Your task to perform on an android device: turn vacation reply on in the gmail app Image 0: 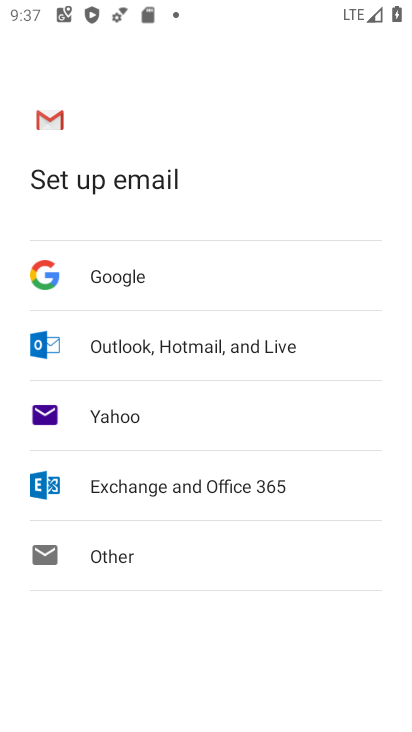
Step 0: press home button
Your task to perform on an android device: turn vacation reply on in the gmail app Image 1: 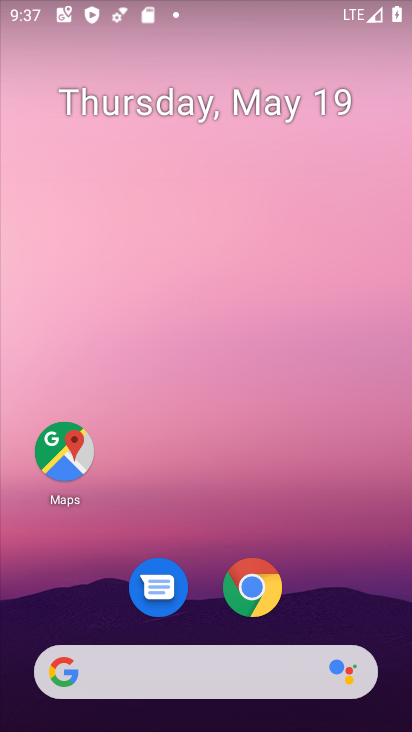
Step 1: drag from (204, 627) to (234, 223)
Your task to perform on an android device: turn vacation reply on in the gmail app Image 2: 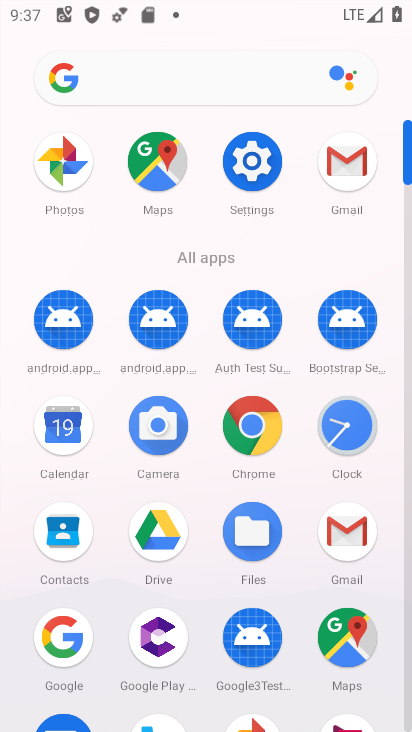
Step 2: click (350, 160)
Your task to perform on an android device: turn vacation reply on in the gmail app Image 3: 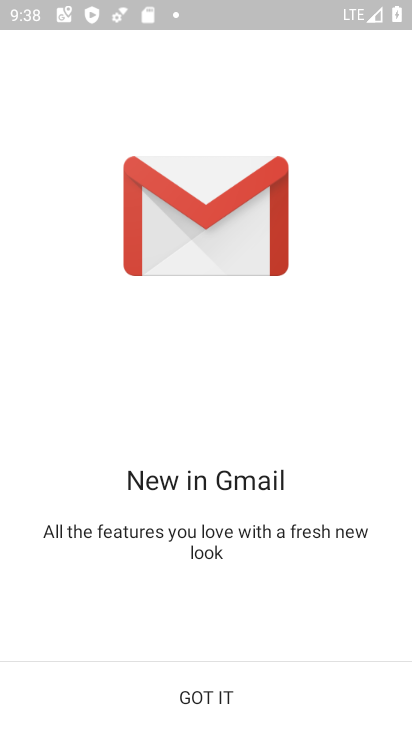
Step 3: click (198, 697)
Your task to perform on an android device: turn vacation reply on in the gmail app Image 4: 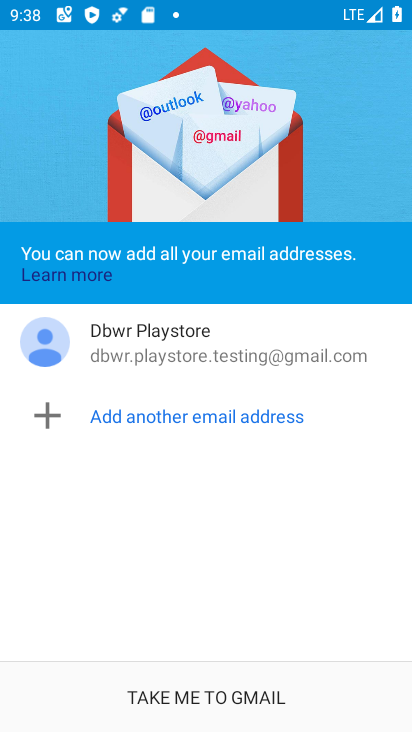
Step 4: click (198, 697)
Your task to perform on an android device: turn vacation reply on in the gmail app Image 5: 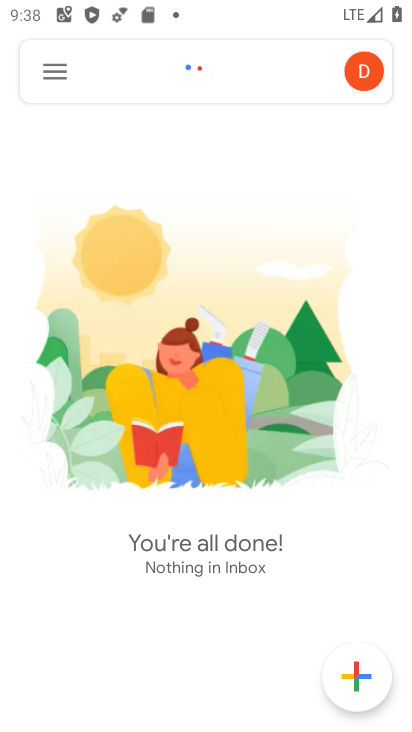
Step 5: click (59, 66)
Your task to perform on an android device: turn vacation reply on in the gmail app Image 6: 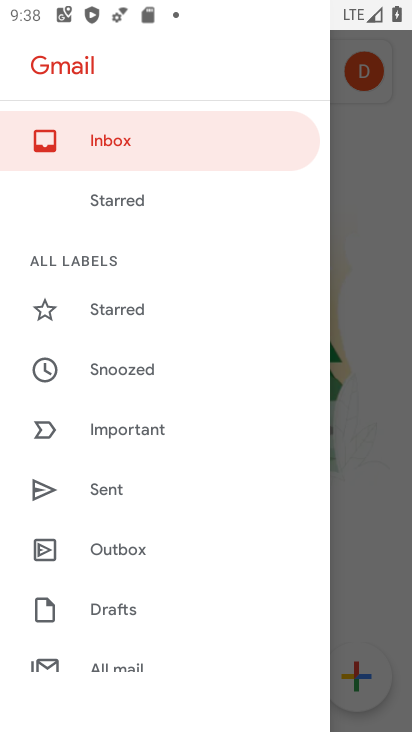
Step 6: drag from (89, 624) to (192, 65)
Your task to perform on an android device: turn vacation reply on in the gmail app Image 7: 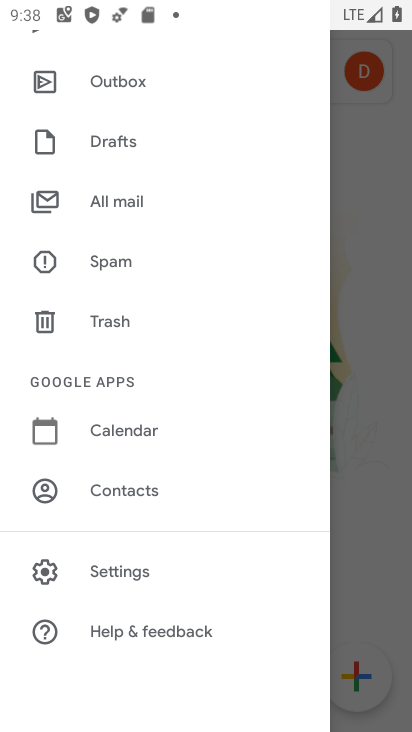
Step 7: click (135, 574)
Your task to perform on an android device: turn vacation reply on in the gmail app Image 8: 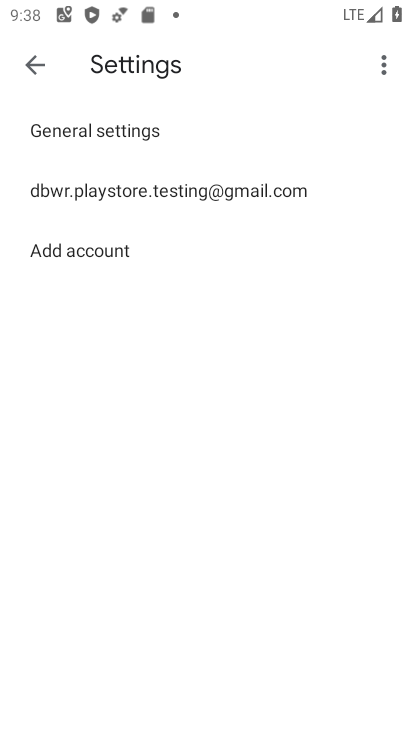
Step 8: click (178, 217)
Your task to perform on an android device: turn vacation reply on in the gmail app Image 9: 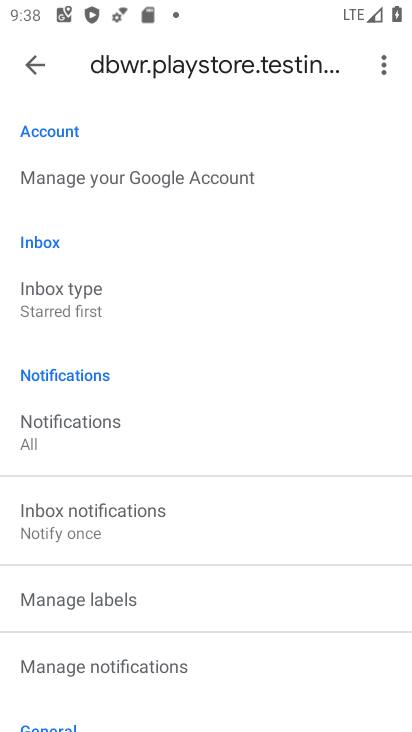
Step 9: drag from (135, 660) to (210, 281)
Your task to perform on an android device: turn vacation reply on in the gmail app Image 10: 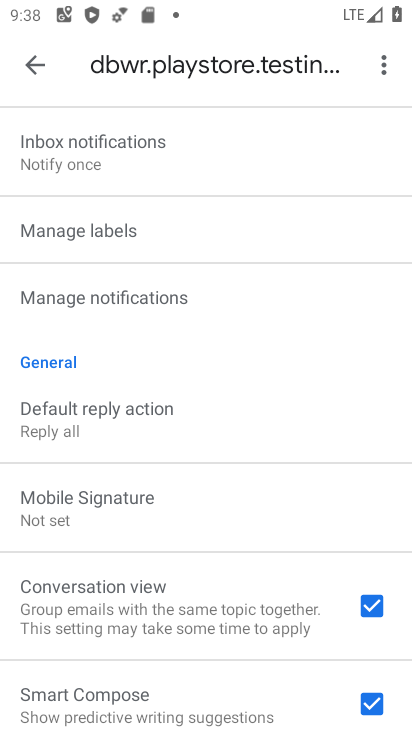
Step 10: drag from (129, 700) to (147, 225)
Your task to perform on an android device: turn vacation reply on in the gmail app Image 11: 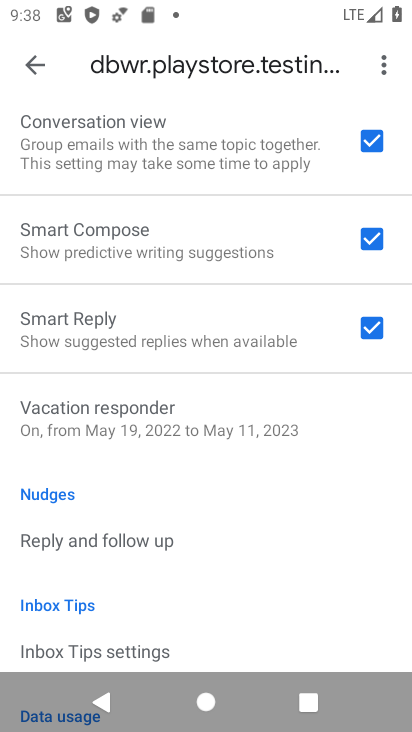
Step 11: click (97, 436)
Your task to perform on an android device: turn vacation reply on in the gmail app Image 12: 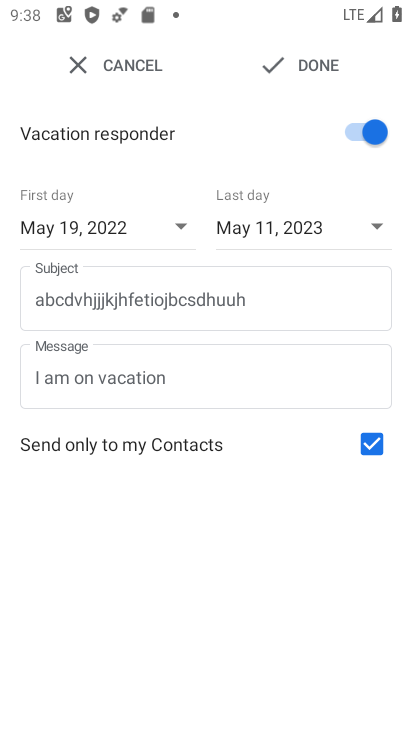
Step 12: click (287, 74)
Your task to perform on an android device: turn vacation reply on in the gmail app Image 13: 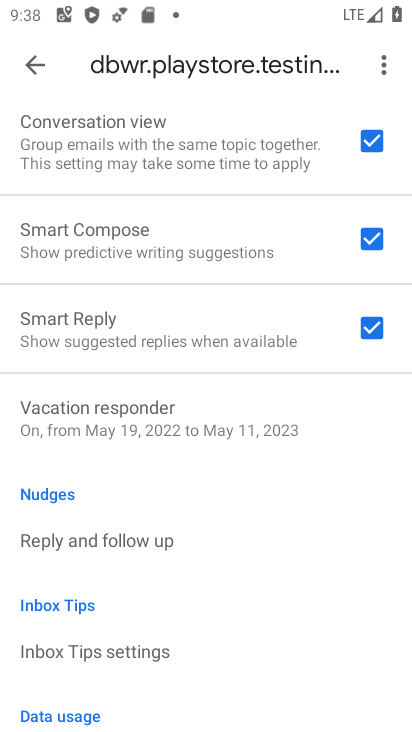
Step 13: task complete